Your task to perform on an android device: turn off wifi Image 0: 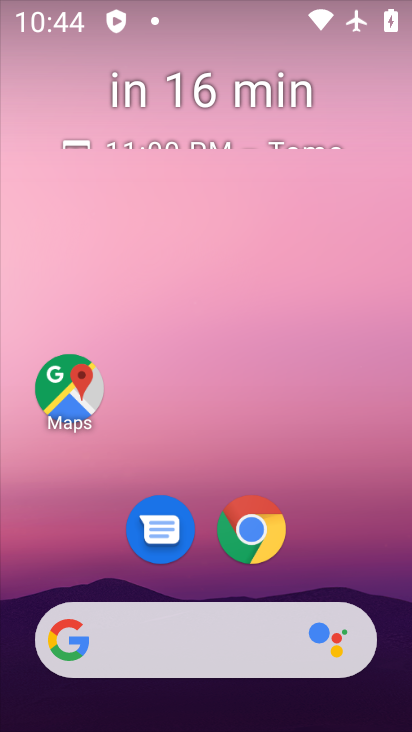
Step 0: drag from (336, 622) to (119, 1)
Your task to perform on an android device: turn off wifi Image 1: 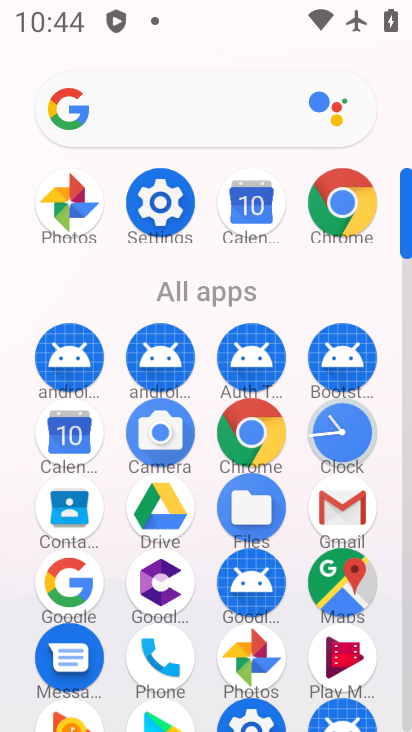
Step 1: click (147, 219)
Your task to perform on an android device: turn off wifi Image 2: 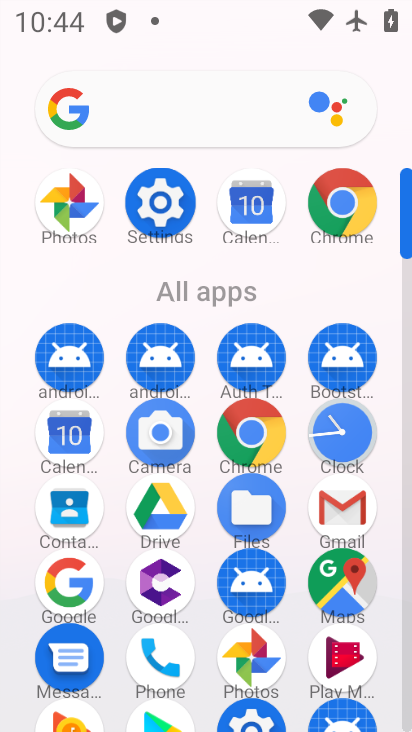
Step 2: click (147, 215)
Your task to perform on an android device: turn off wifi Image 3: 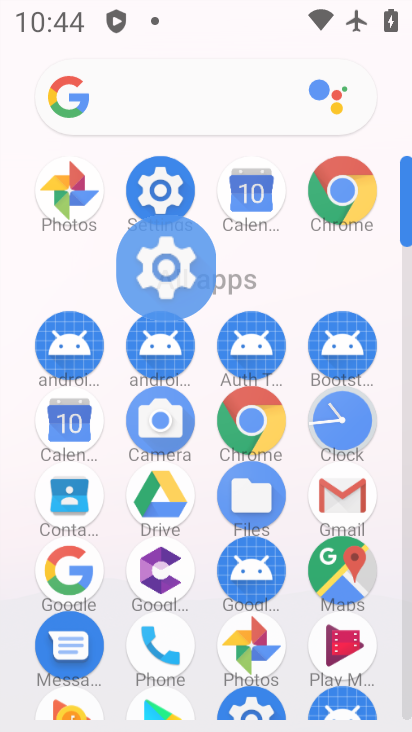
Step 3: click (139, 208)
Your task to perform on an android device: turn off wifi Image 4: 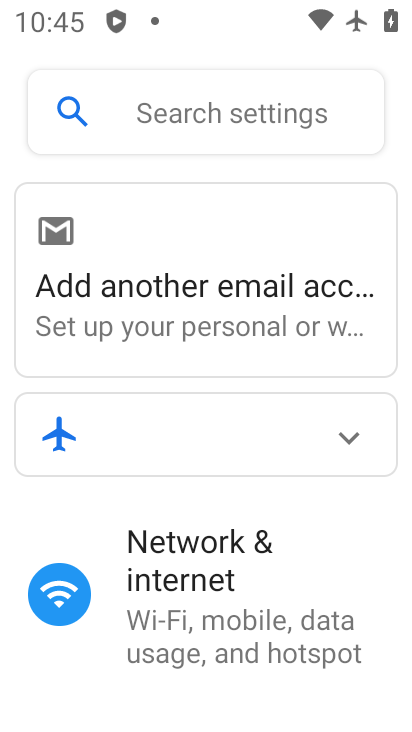
Step 4: click (211, 591)
Your task to perform on an android device: turn off wifi Image 5: 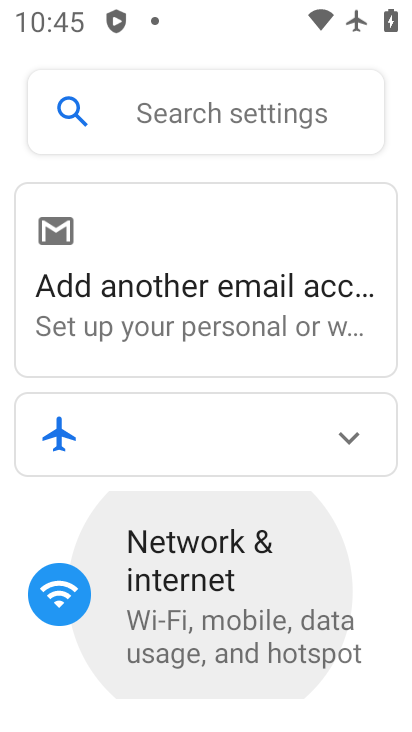
Step 5: click (209, 591)
Your task to perform on an android device: turn off wifi Image 6: 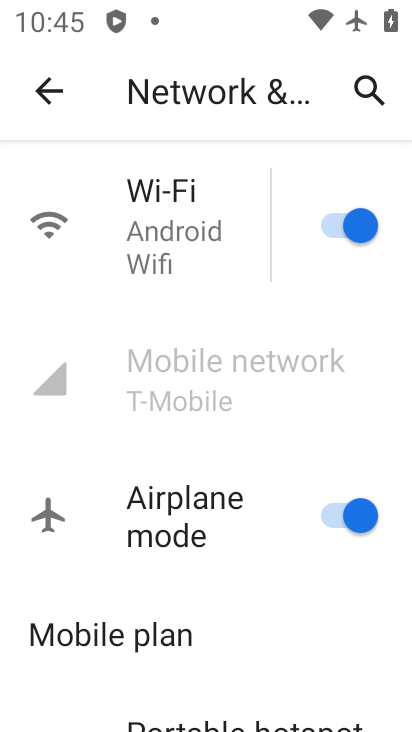
Step 6: click (352, 224)
Your task to perform on an android device: turn off wifi Image 7: 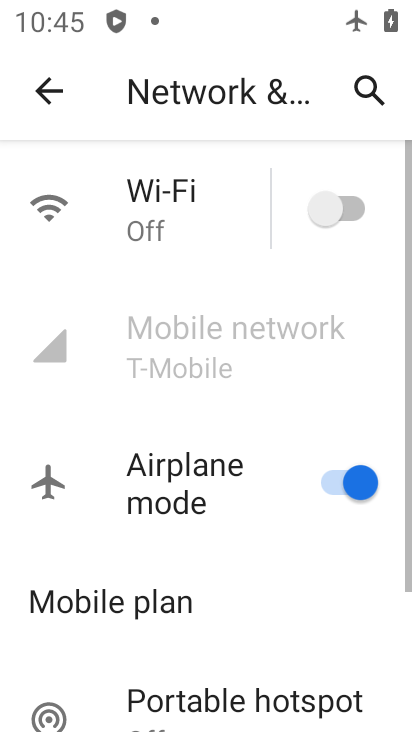
Step 7: task complete